Your task to perform on an android device: Open Youtube and go to the subscriptions tab Image 0: 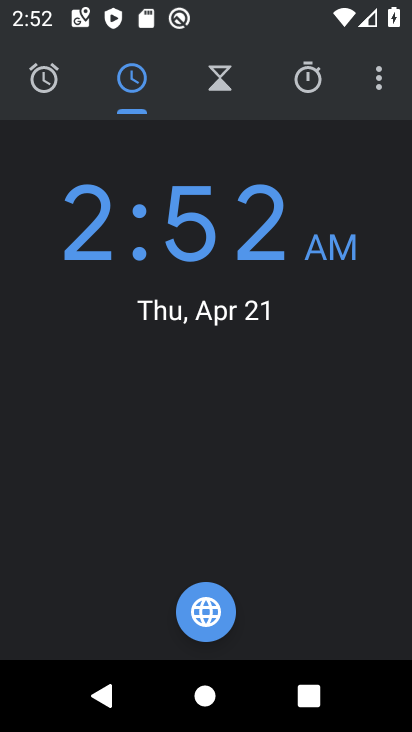
Step 0: press home button
Your task to perform on an android device: Open Youtube and go to the subscriptions tab Image 1: 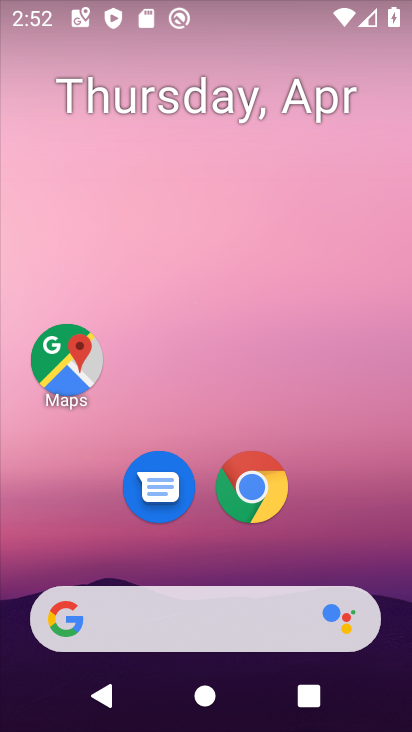
Step 1: drag from (210, 605) to (222, 364)
Your task to perform on an android device: Open Youtube and go to the subscriptions tab Image 2: 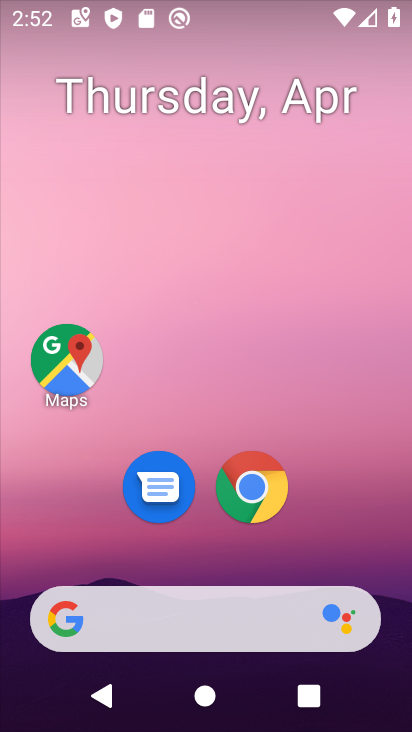
Step 2: drag from (208, 538) to (229, 362)
Your task to perform on an android device: Open Youtube and go to the subscriptions tab Image 3: 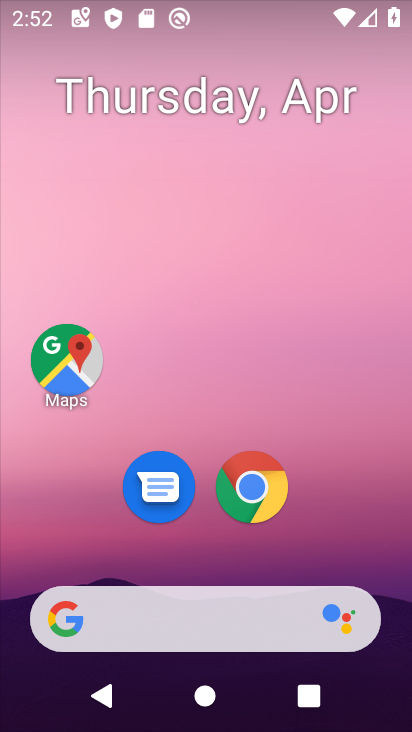
Step 3: drag from (221, 557) to (216, 143)
Your task to perform on an android device: Open Youtube and go to the subscriptions tab Image 4: 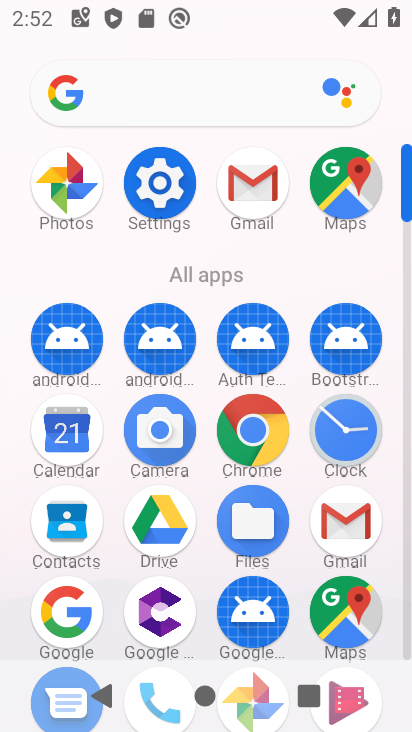
Step 4: click (407, 436)
Your task to perform on an android device: Open Youtube and go to the subscriptions tab Image 5: 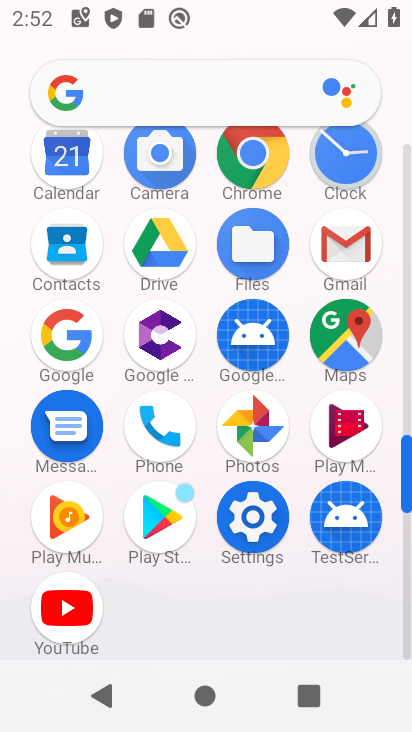
Step 5: click (72, 622)
Your task to perform on an android device: Open Youtube and go to the subscriptions tab Image 6: 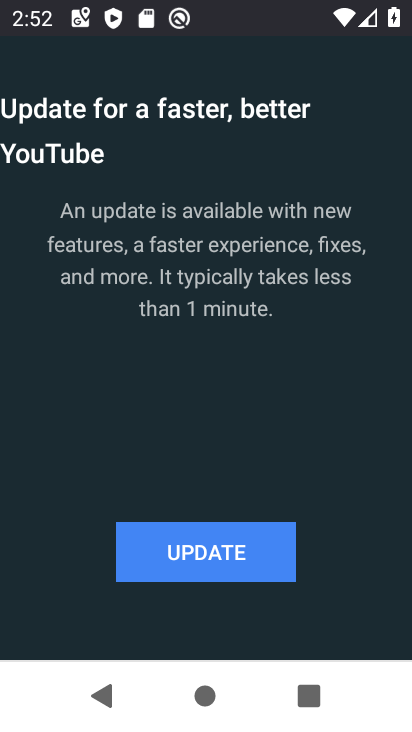
Step 6: click (199, 546)
Your task to perform on an android device: Open Youtube and go to the subscriptions tab Image 7: 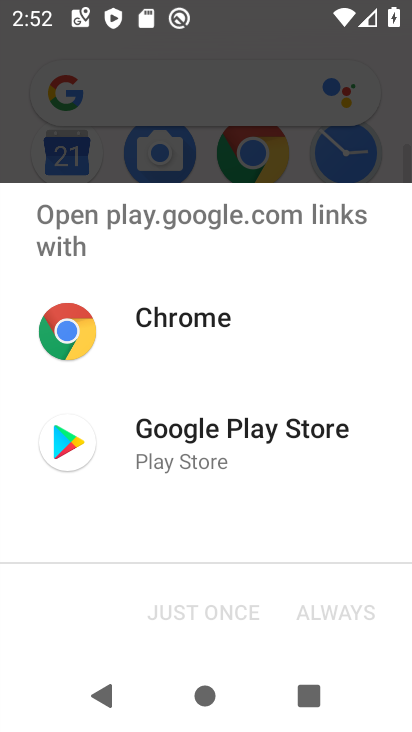
Step 7: click (220, 440)
Your task to perform on an android device: Open Youtube and go to the subscriptions tab Image 8: 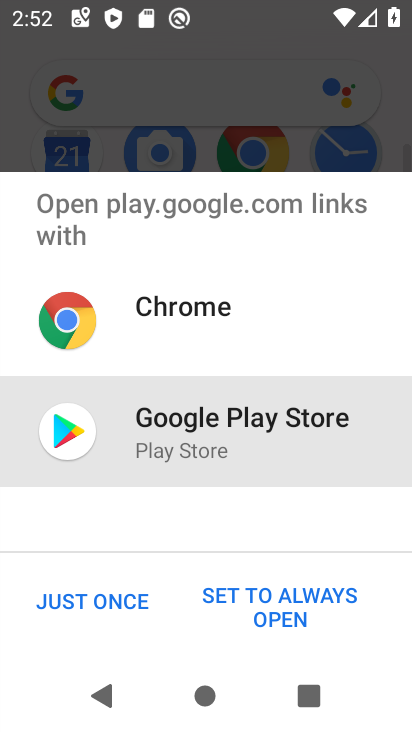
Step 8: click (141, 603)
Your task to perform on an android device: Open Youtube and go to the subscriptions tab Image 9: 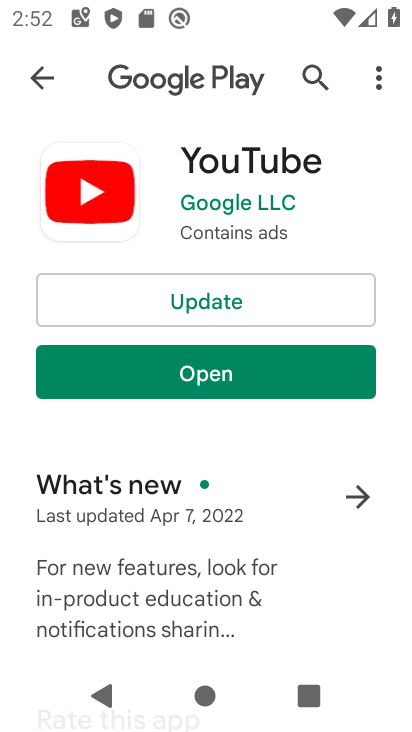
Step 9: click (270, 295)
Your task to perform on an android device: Open Youtube and go to the subscriptions tab Image 10: 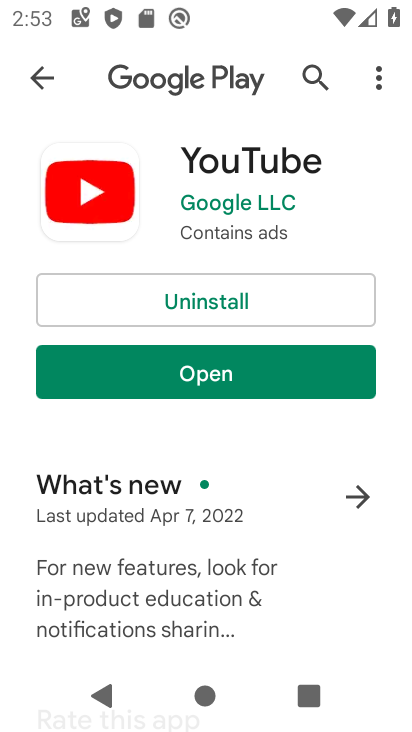
Step 10: click (341, 375)
Your task to perform on an android device: Open Youtube and go to the subscriptions tab Image 11: 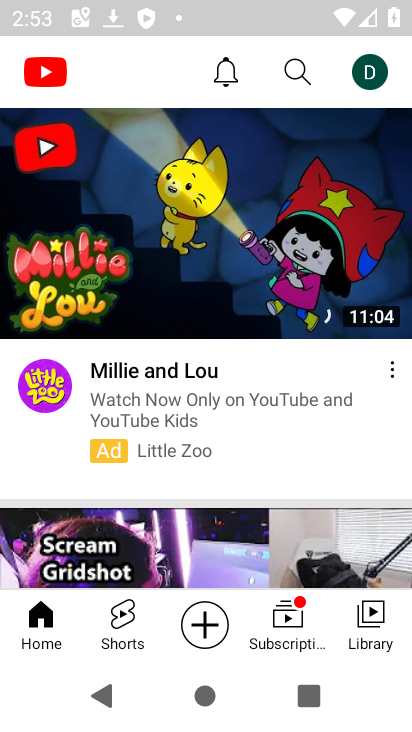
Step 11: click (288, 621)
Your task to perform on an android device: Open Youtube and go to the subscriptions tab Image 12: 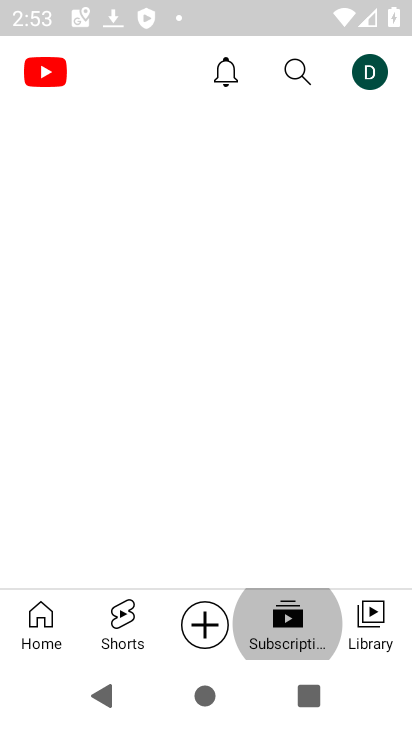
Step 12: click (288, 621)
Your task to perform on an android device: Open Youtube and go to the subscriptions tab Image 13: 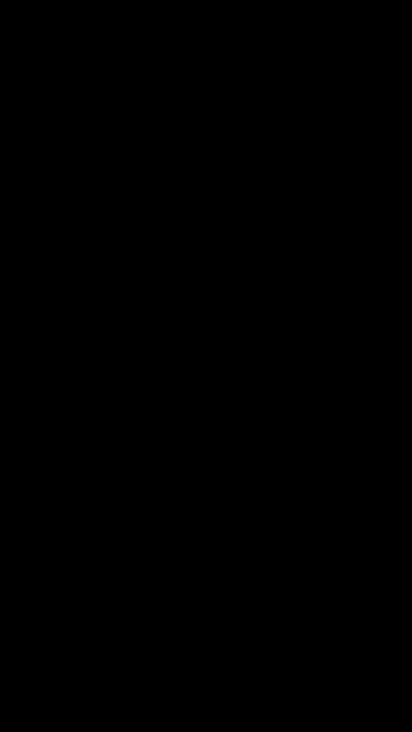
Step 13: task complete